Your task to perform on an android device: Show me popular videos on Youtube Image 0: 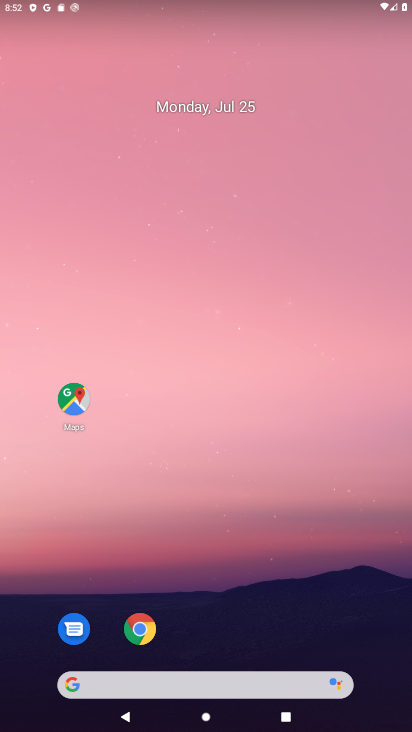
Step 0: drag from (248, 649) to (223, 56)
Your task to perform on an android device: Show me popular videos on Youtube Image 1: 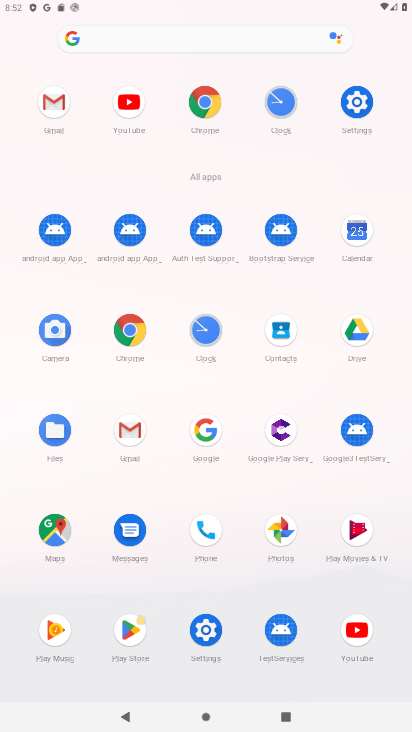
Step 1: click (132, 110)
Your task to perform on an android device: Show me popular videos on Youtube Image 2: 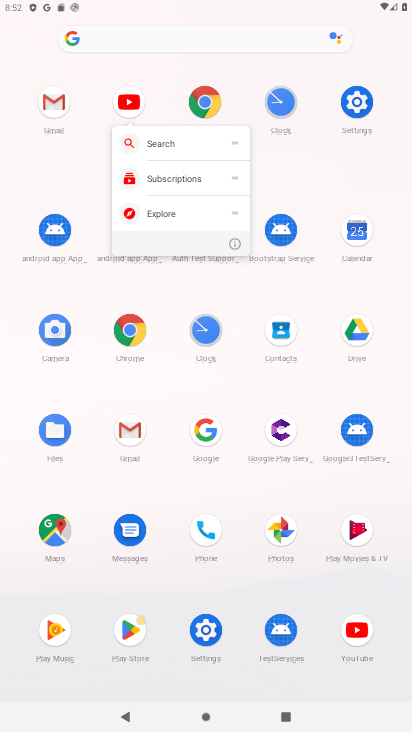
Step 2: click (125, 101)
Your task to perform on an android device: Show me popular videos on Youtube Image 3: 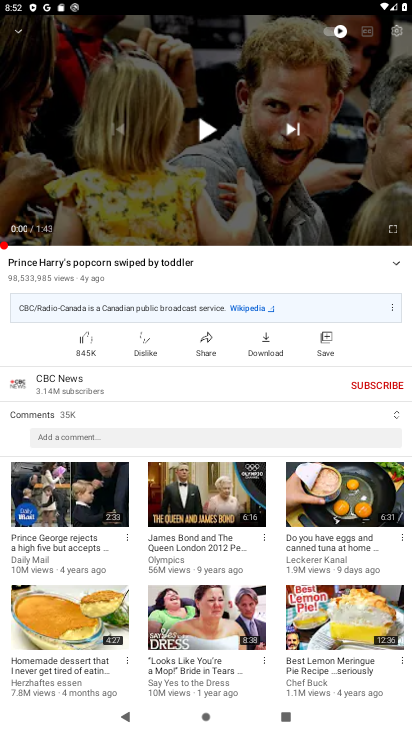
Step 3: click (17, 33)
Your task to perform on an android device: Show me popular videos on Youtube Image 4: 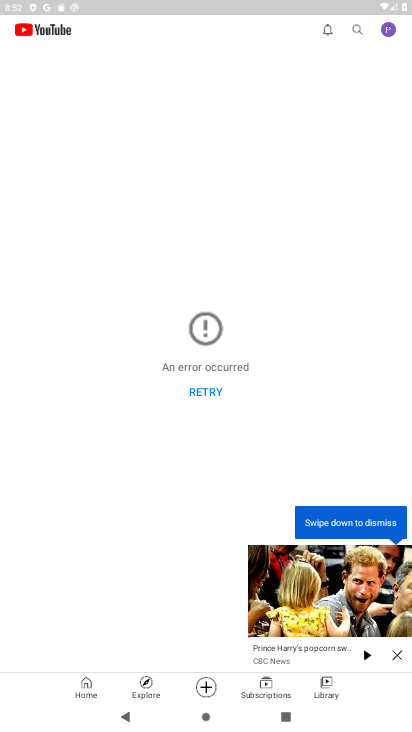
Step 4: click (89, 695)
Your task to perform on an android device: Show me popular videos on Youtube Image 5: 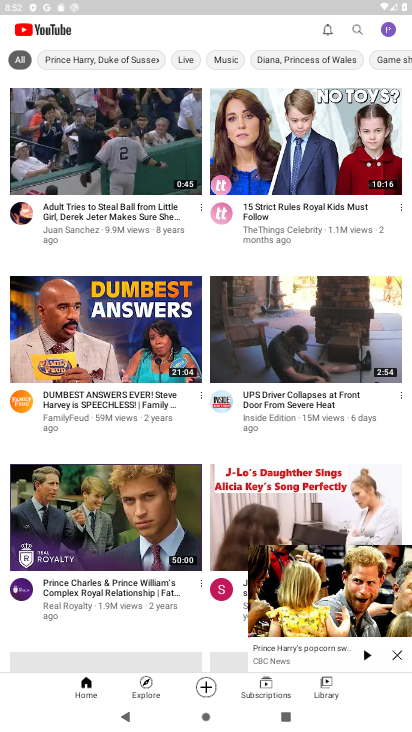
Step 5: task complete